Your task to perform on an android device: Open Google Chrome and click the shortcut for Amazon.com Image 0: 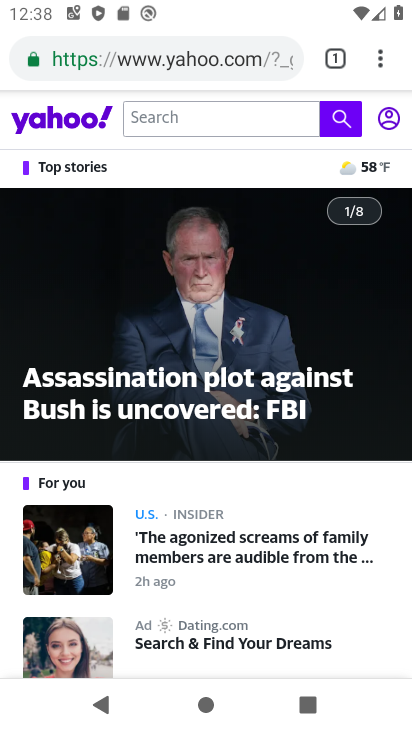
Step 0: click (246, 65)
Your task to perform on an android device: Open Google Chrome and click the shortcut for Amazon.com Image 1: 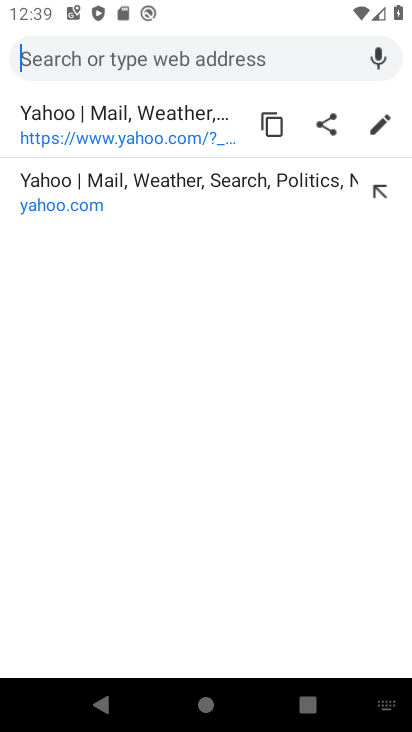
Step 1: type "amazone"
Your task to perform on an android device: Open Google Chrome and click the shortcut for Amazon.com Image 2: 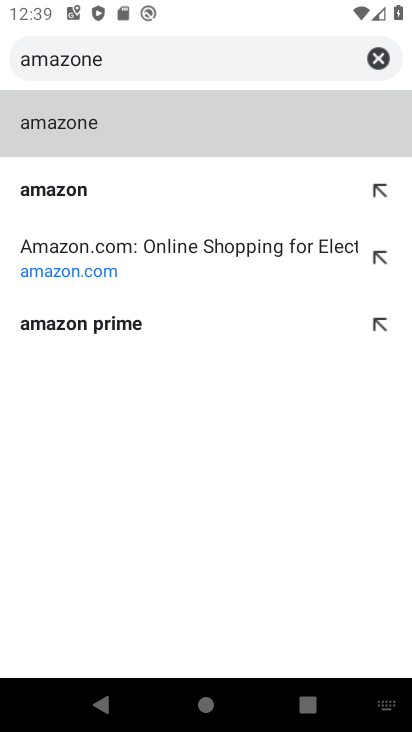
Step 2: click (101, 256)
Your task to perform on an android device: Open Google Chrome and click the shortcut for Amazon.com Image 3: 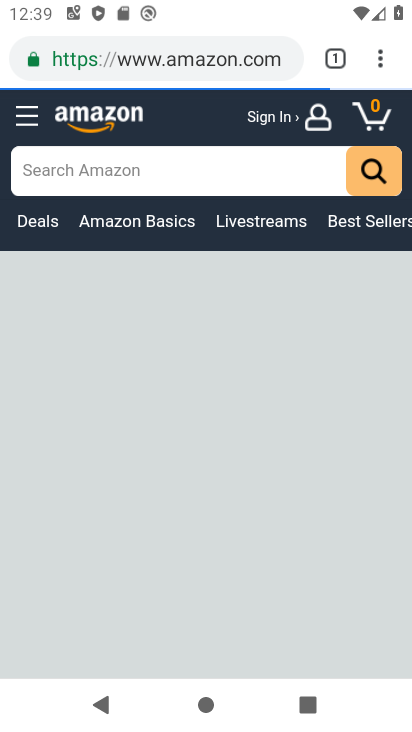
Step 3: task complete